Your task to perform on an android device: Open Google Chrome and open the bookmarks view Image 0: 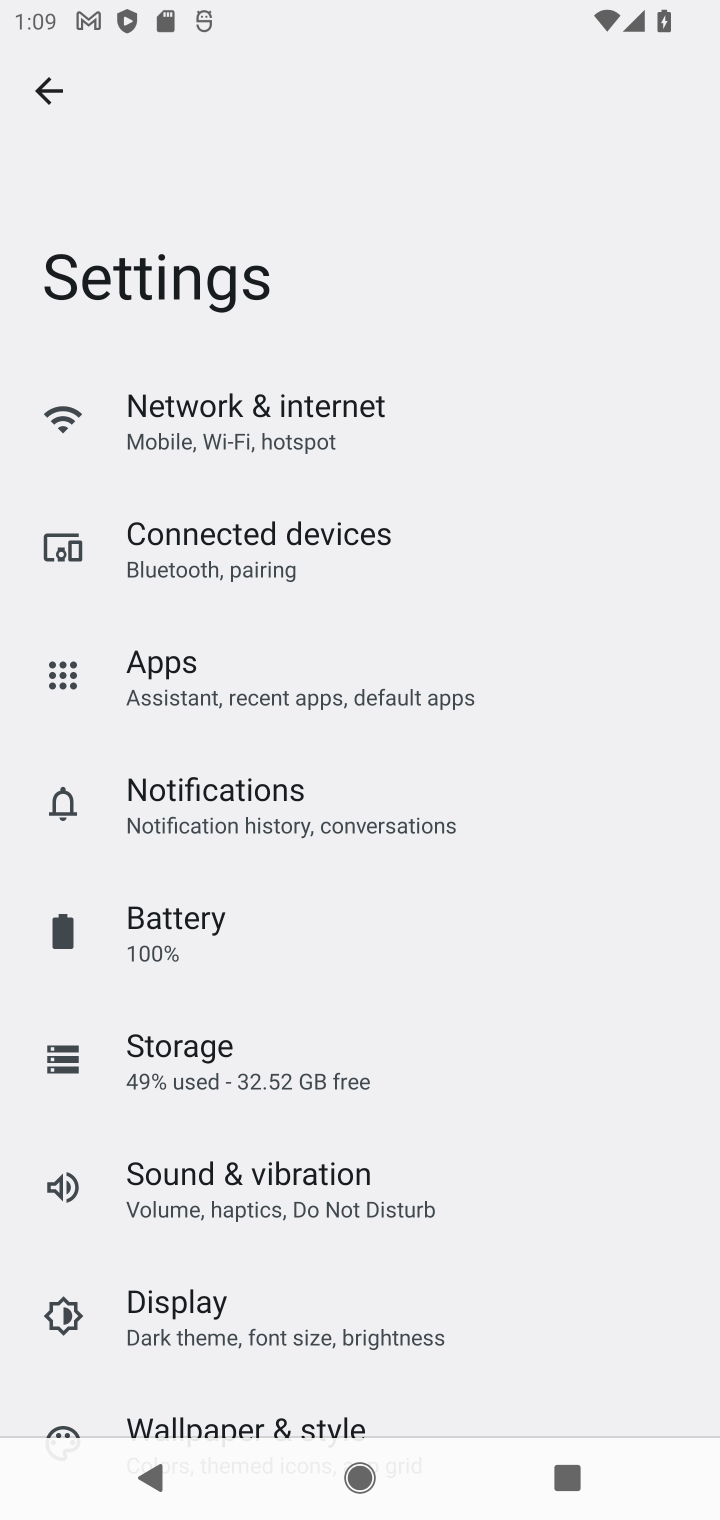
Step 0: press home button
Your task to perform on an android device: Open Google Chrome and open the bookmarks view Image 1: 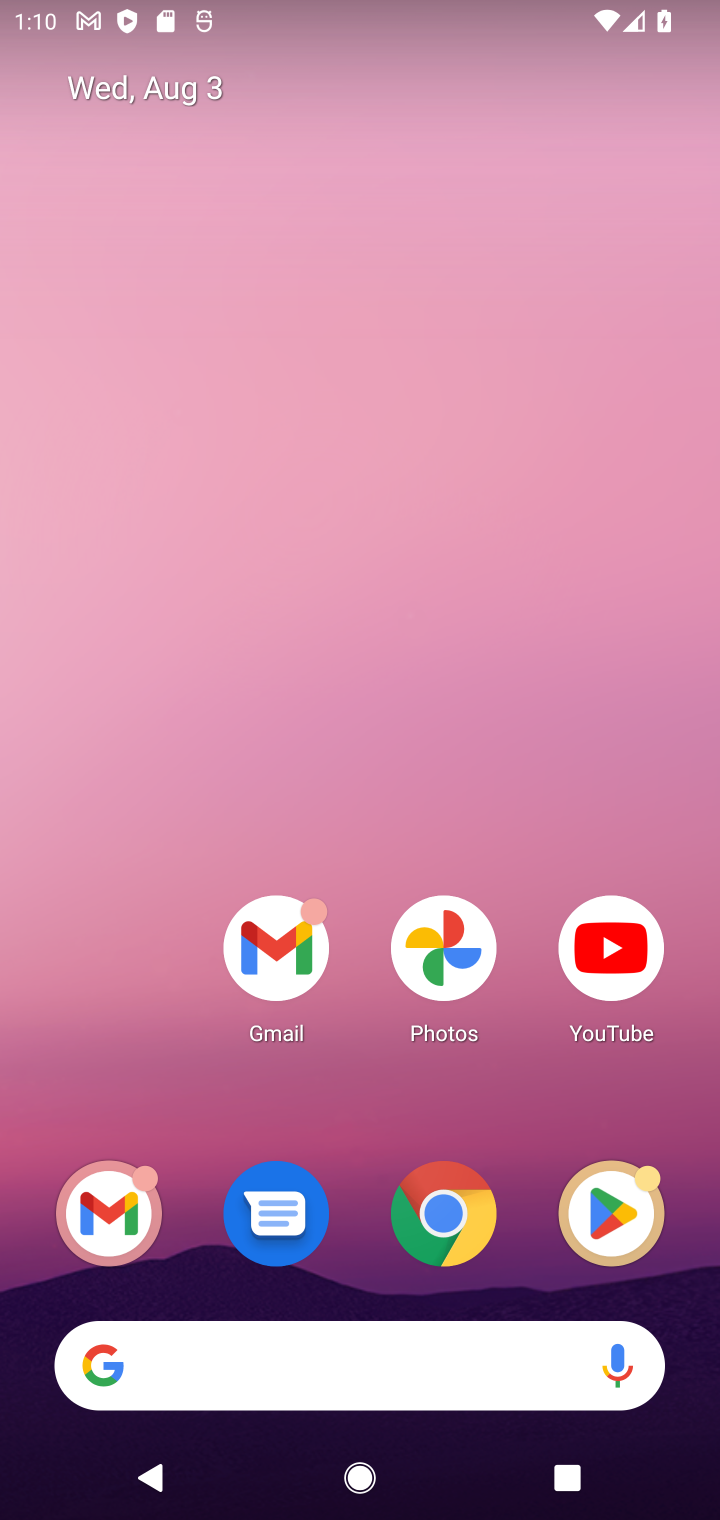
Step 1: drag from (521, 1163) to (447, 25)
Your task to perform on an android device: Open Google Chrome and open the bookmarks view Image 2: 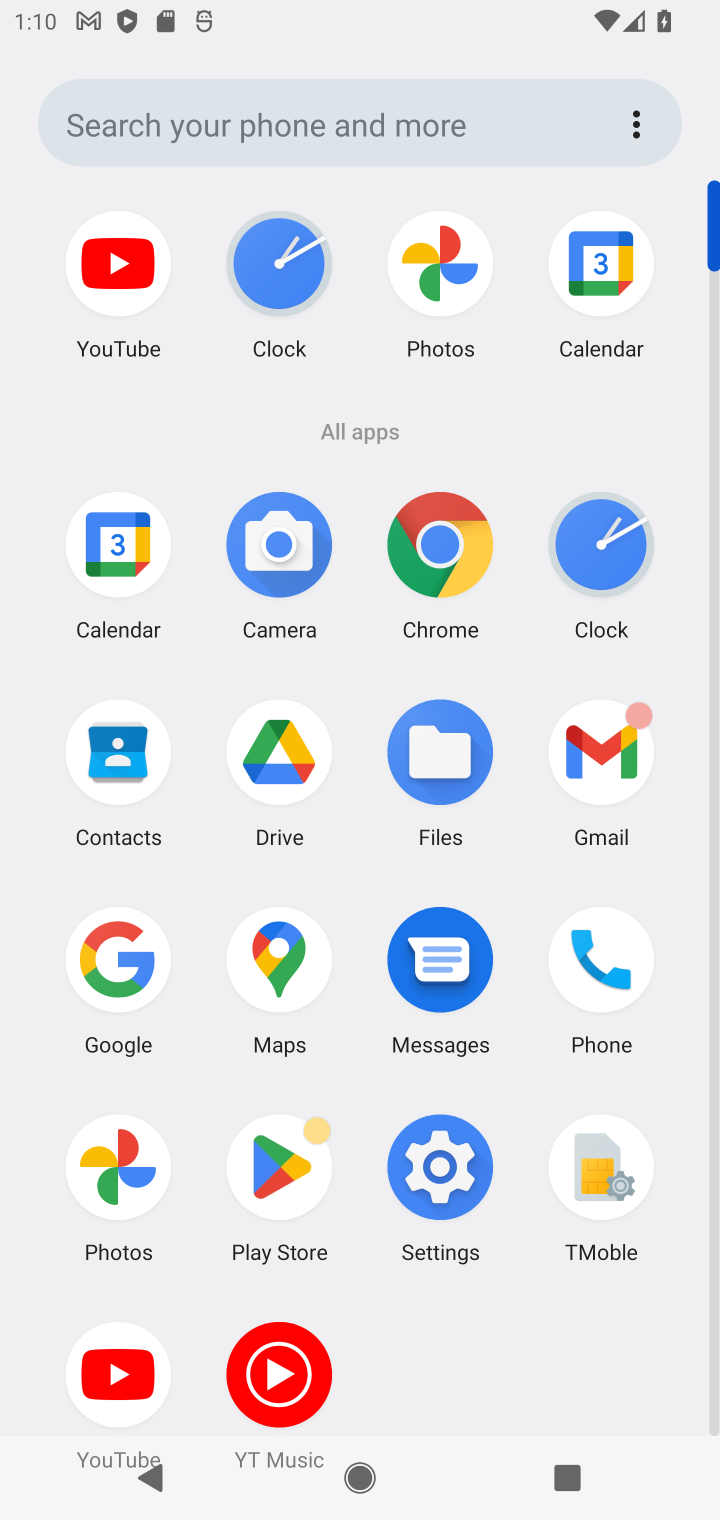
Step 2: click (462, 507)
Your task to perform on an android device: Open Google Chrome and open the bookmarks view Image 3: 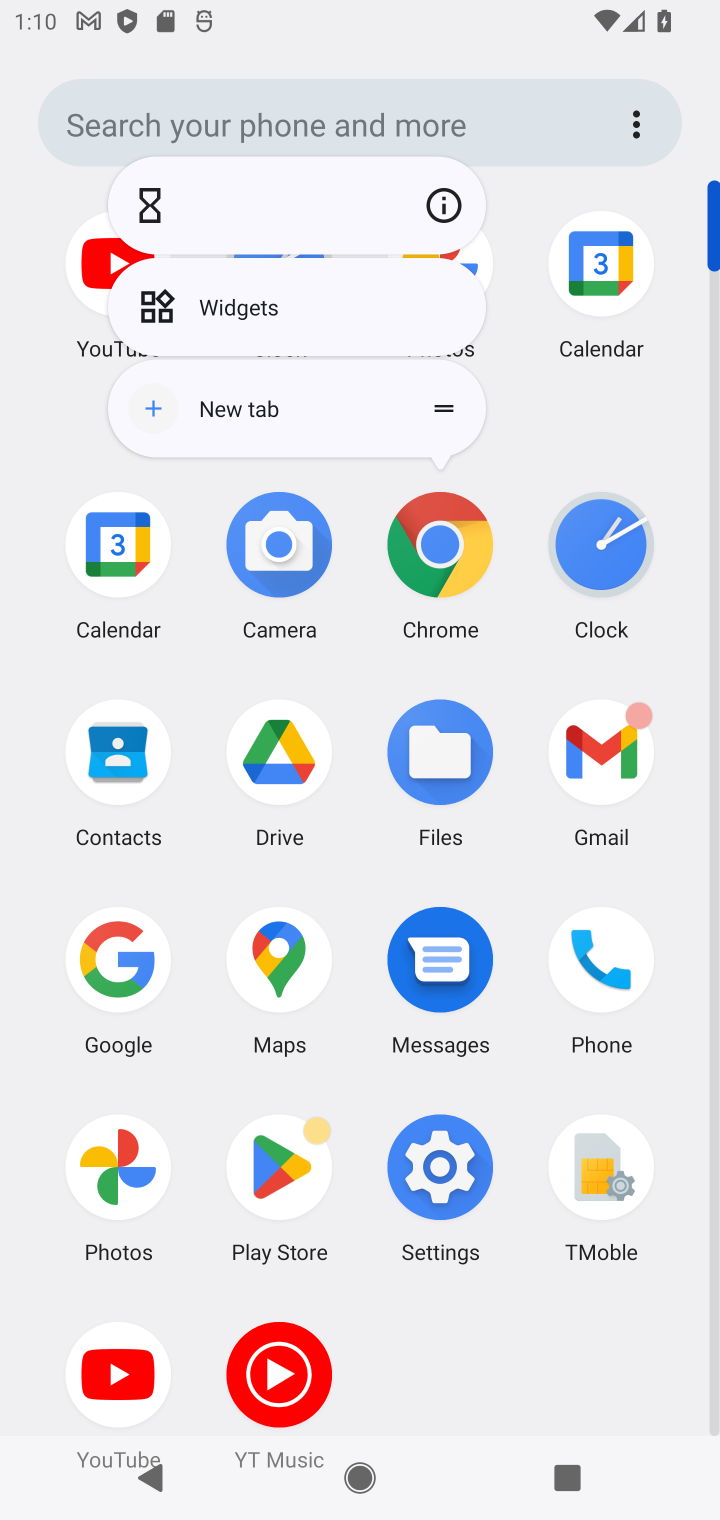
Step 3: click (467, 561)
Your task to perform on an android device: Open Google Chrome and open the bookmarks view Image 4: 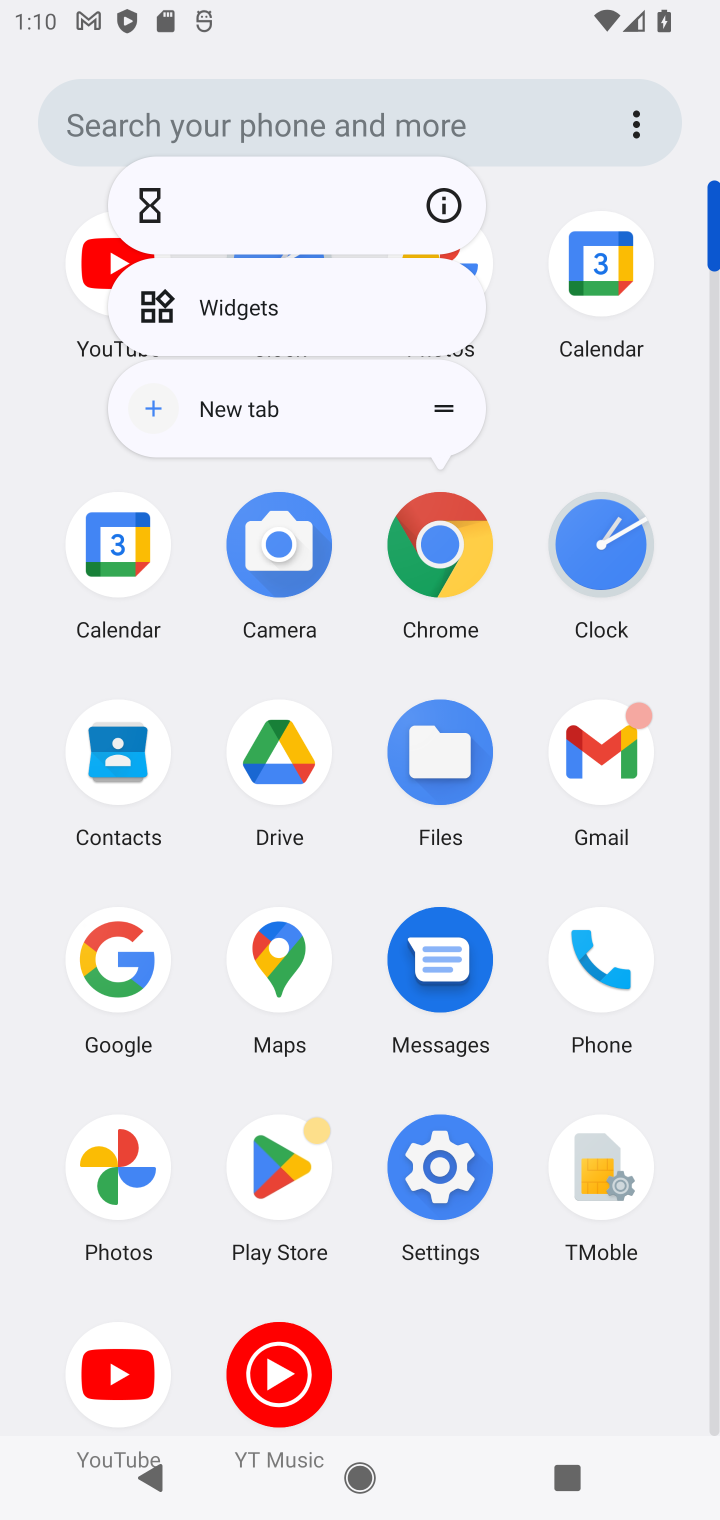
Step 4: click (461, 557)
Your task to perform on an android device: Open Google Chrome and open the bookmarks view Image 5: 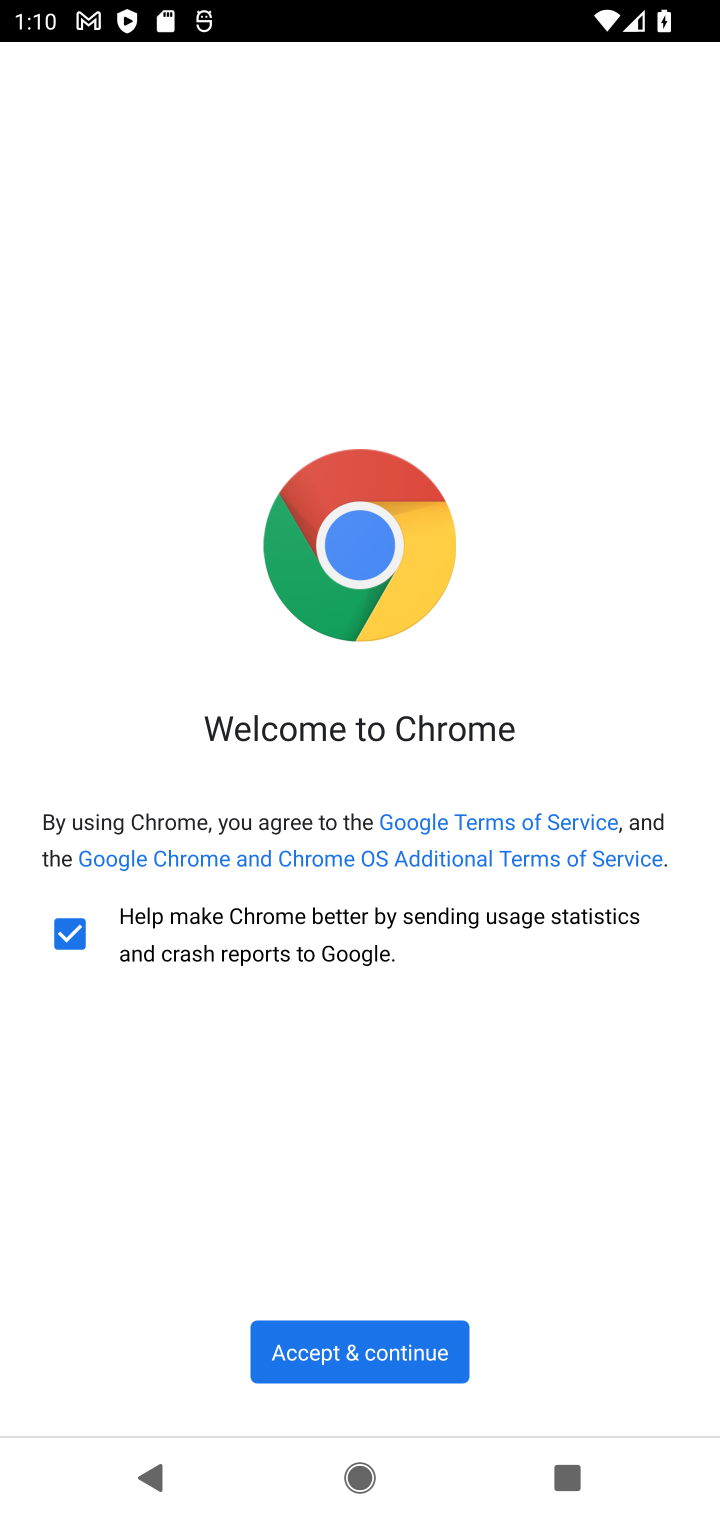
Step 5: click (434, 1343)
Your task to perform on an android device: Open Google Chrome and open the bookmarks view Image 6: 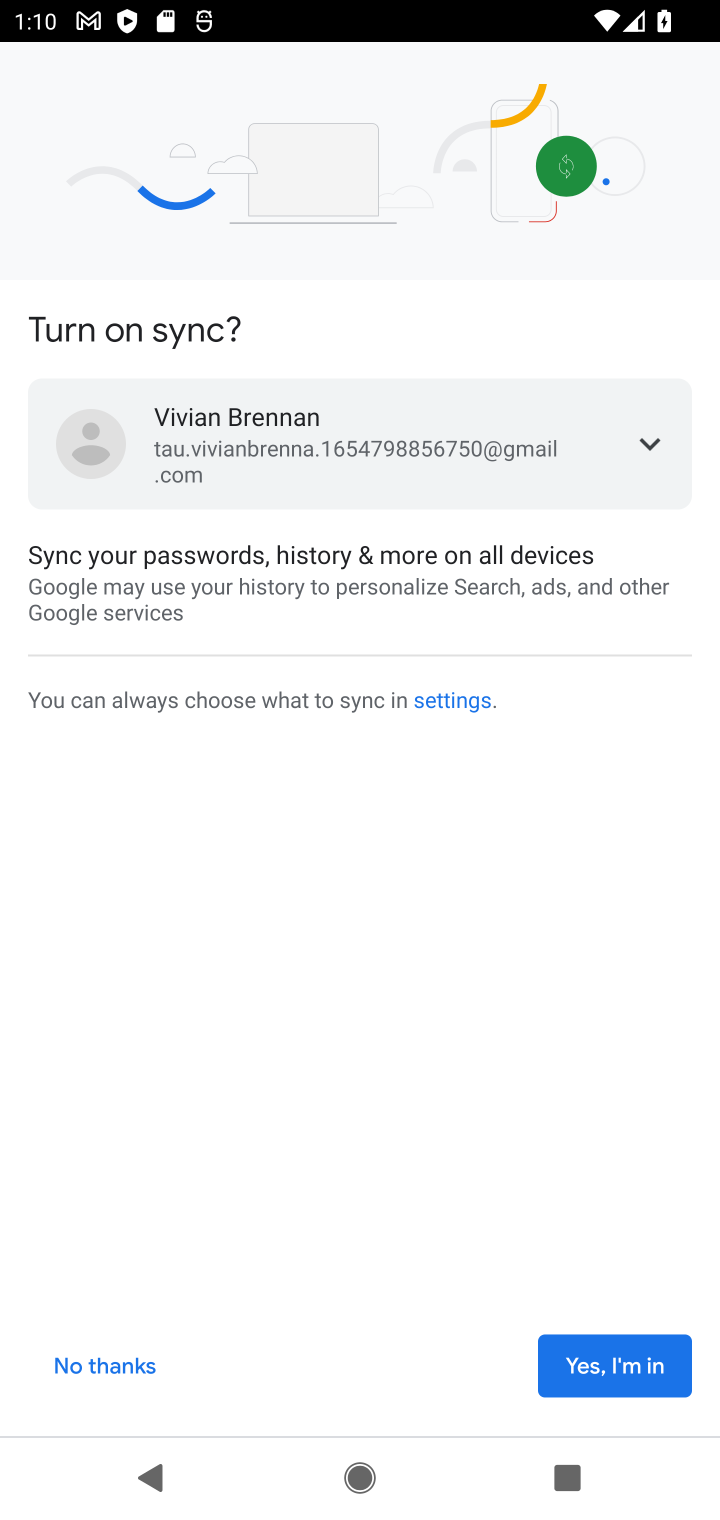
Step 6: click (145, 1368)
Your task to perform on an android device: Open Google Chrome and open the bookmarks view Image 7: 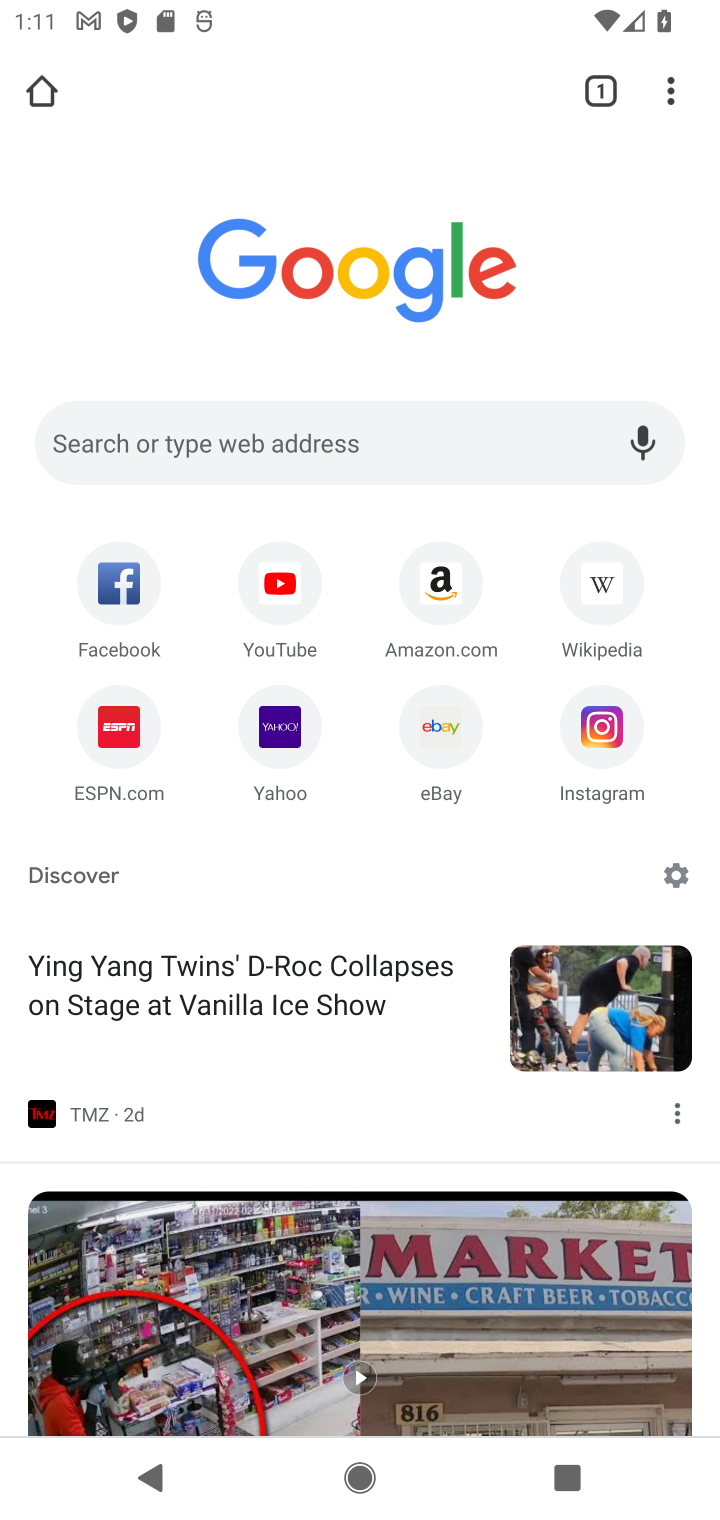
Step 7: task complete